Your task to perform on an android device: change the clock display to digital Image 0: 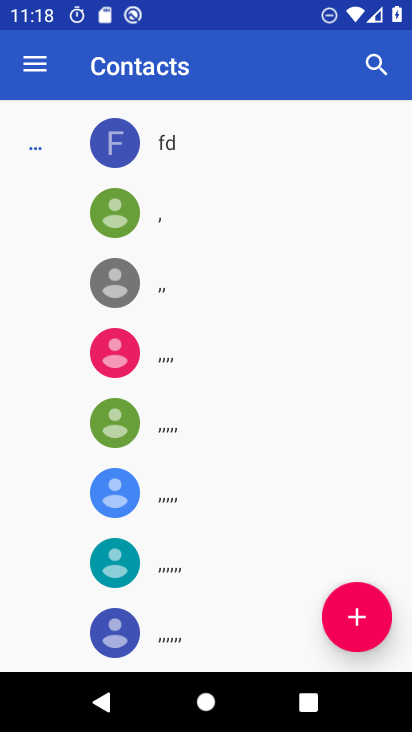
Step 0: press home button
Your task to perform on an android device: change the clock display to digital Image 1: 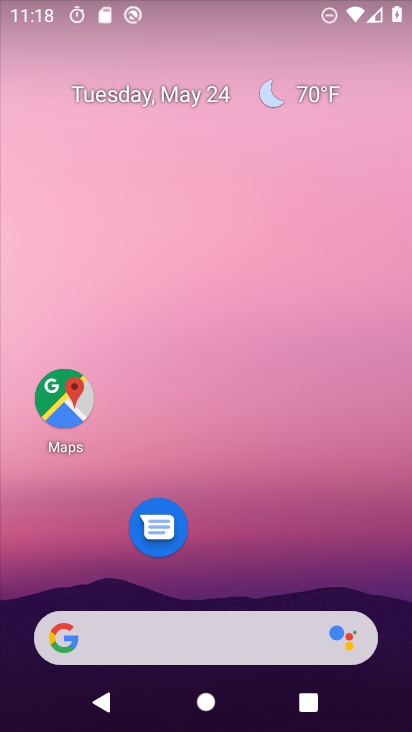
Step 1: drag from (253, 548) to (272, 112)
Your task to perform on an android device: change the clock display to digital Image 2: 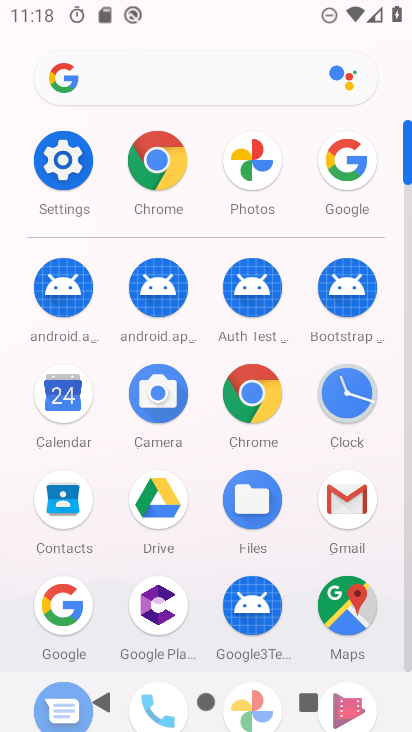
Step 2: click (351, 395)
Your task to perform on an android device: change the clock display to digital Image 3: 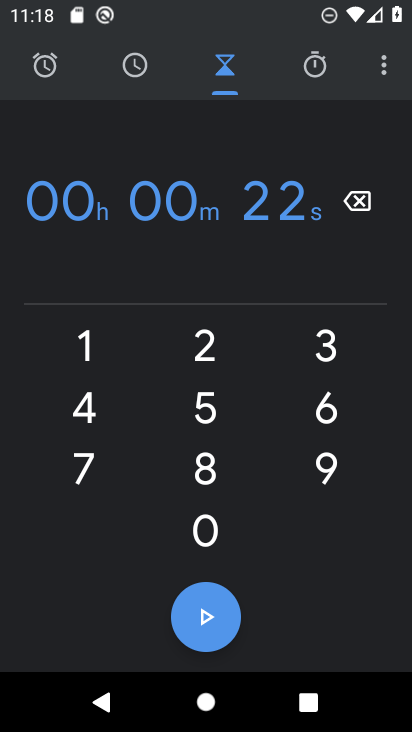
Step 3: click (379, 71)
Your task to perform on an android device: change the clock display to digital Image 4: 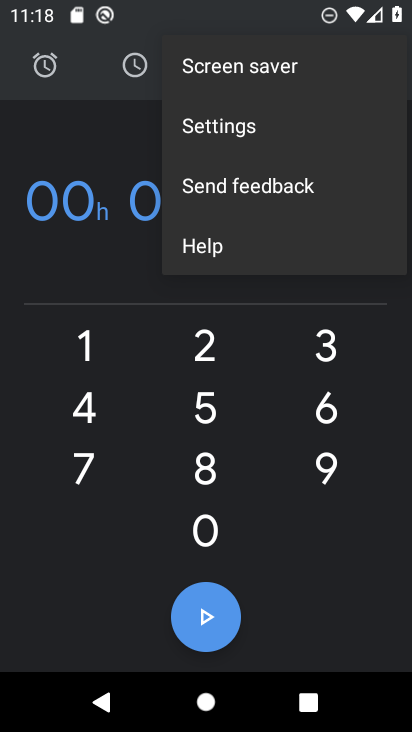
Step 4: click (263, 135)
Your task to perform on an android device: change the clock display to digital Image 5: 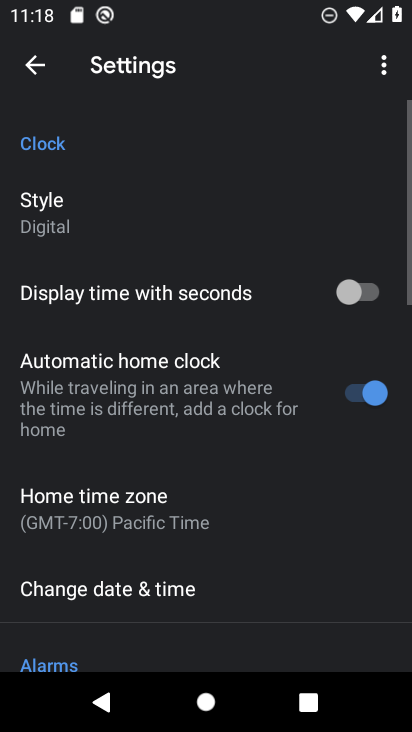
Step 5: click (112, 236)
Your task to perform on an android device: change the clock display to digital Image 6: 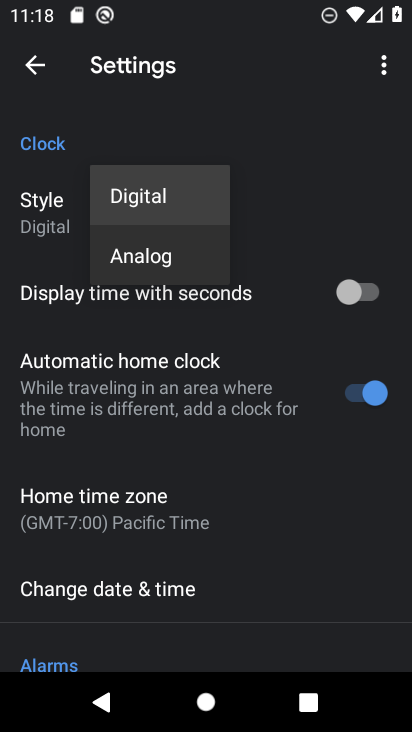
Step 6: click (161, 204)
Your task to perform on an android device: change the clock display to digital Image 7: 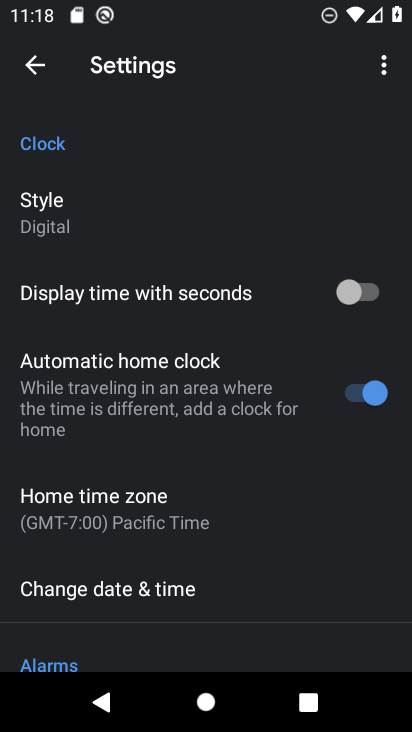
Step 7: task complete